Your task to perform on an android device: Search for sushi restaurants on Maps Image 0: 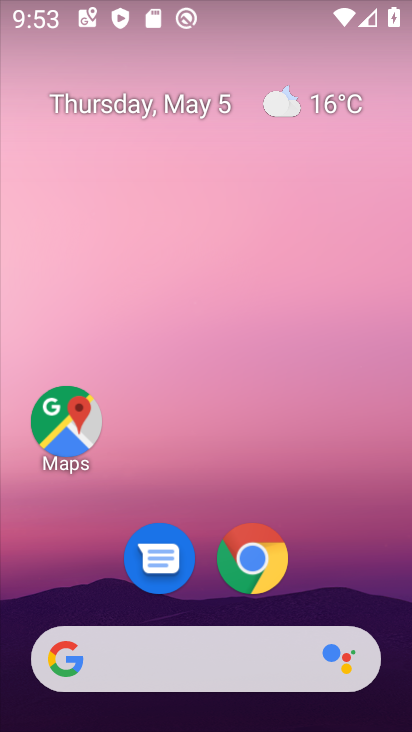
Step 0: click (83, 424)
Your task to perform on an android device: Search for sushi restaurants on Maps Image 1: 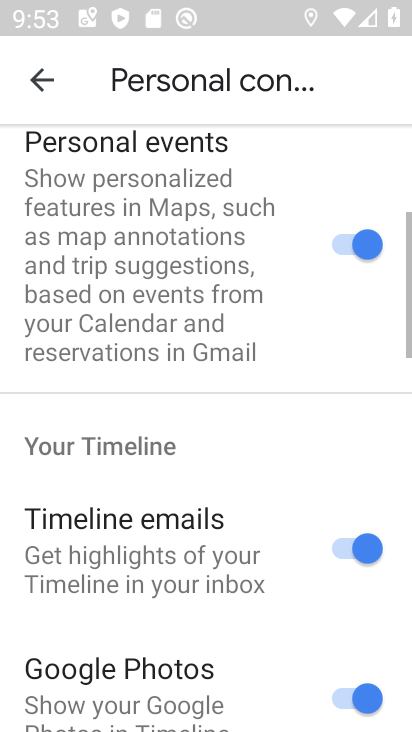
Step 1: click (47, 82)
Your task to perform on an android device: Search for sushi restaurants on Maps Image 2: 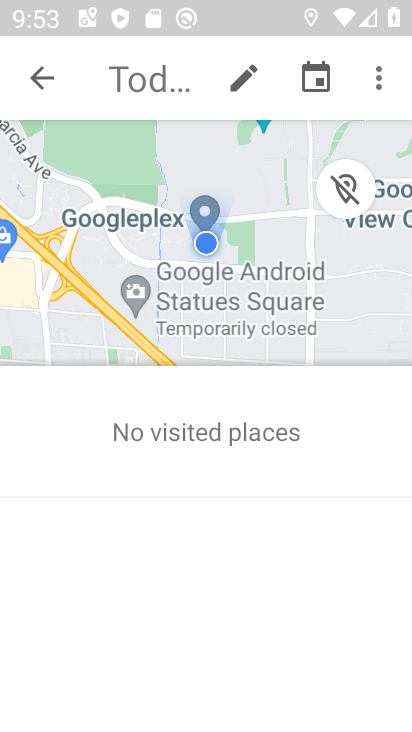
Step 2: click (47, 82)
Your task to perform on an android device: Search for sushi restaurants on Maps Image 3: 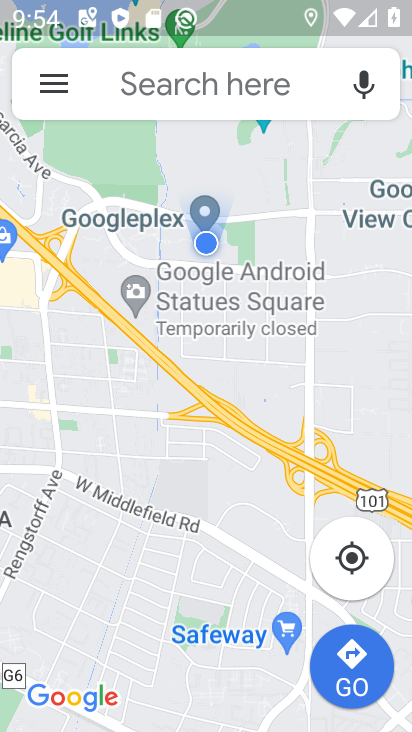
Step 3: click (138, 87)
Your task to perform on an android device: Search for sushi restaurants on Maps Image 4: 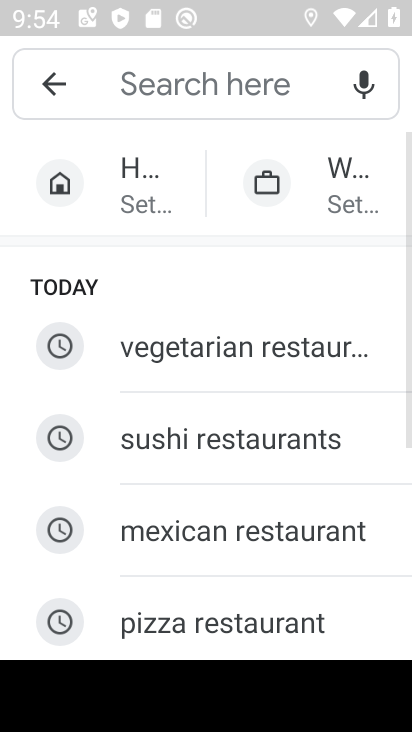
Step 4: click (164, 442)
Your task to perform on an android device: Search for sushi restaurants on Maps Image 5: 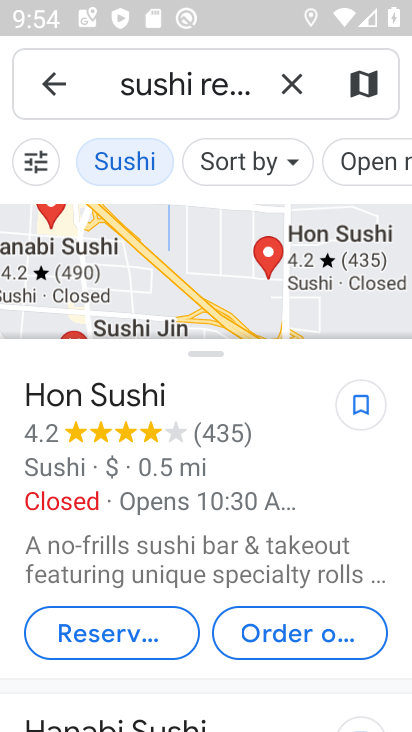
Step 5: task complete